Your task to perform on an android device: Go to notification settings Image 0: 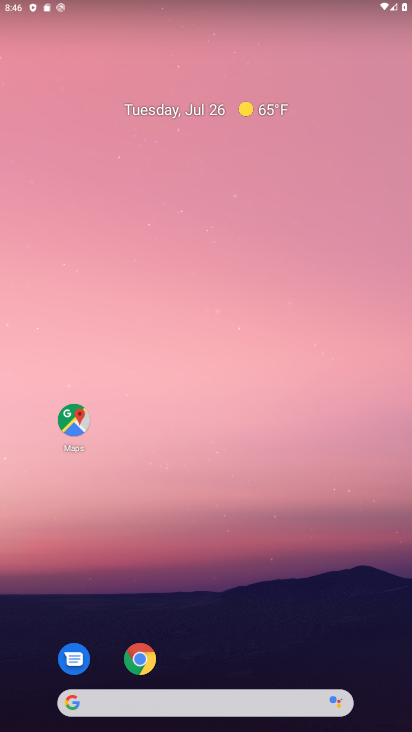
Step 0: drag from (211, 581) to (211, 246)
Your task to perform on an android device: Go to notification settings Image 1: 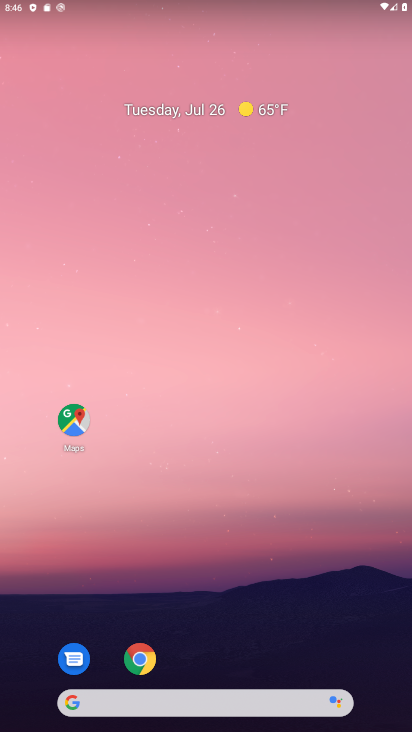
Step 1: drag from (186, 610) to (212, 90)
Your task to perform on an android device: Go to notification settings Image 2: 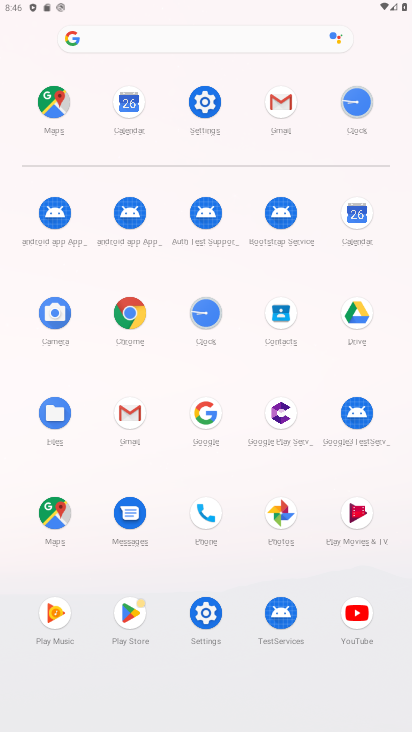
Step 2: click (197, 113)
Your task to perform on an android device: Go to notification settings Image 3: 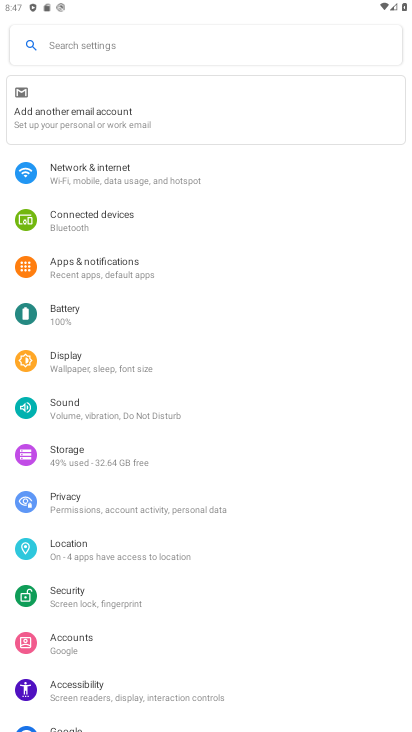
Step 3: click (81, 182)
Your task to perform on an android device: Go to notification settings Image 4: 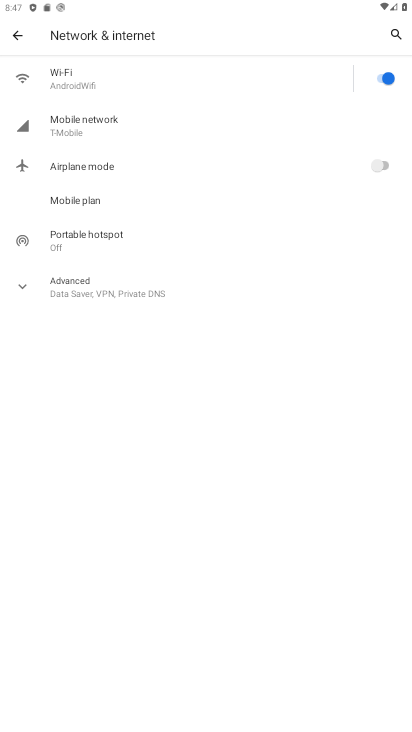
Step 4: task complete